Your task to perform on an android device: turn off location Image 0: 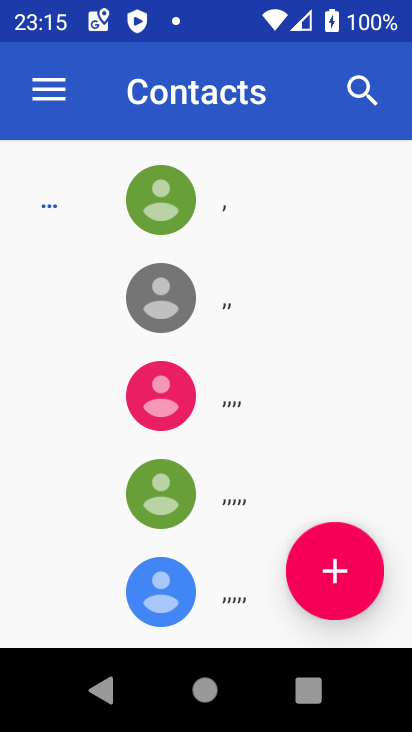
Step 0: press home button
Your task to perform on an android device: turn off location Image 1: 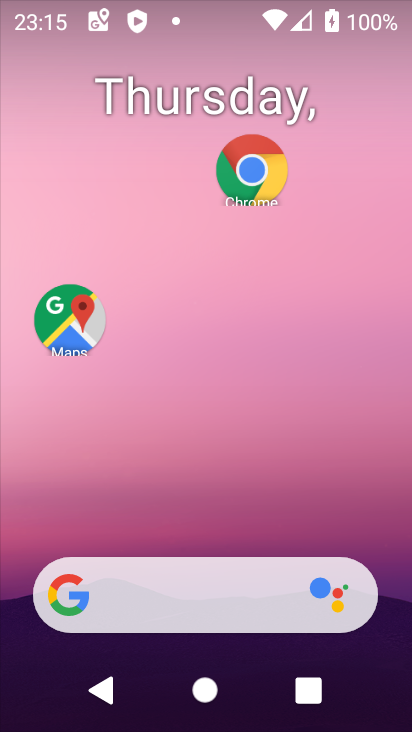
Step 1: drag from (194, 552) to (274, 281)
Your task to perform on an android device: turn off location Image 2: 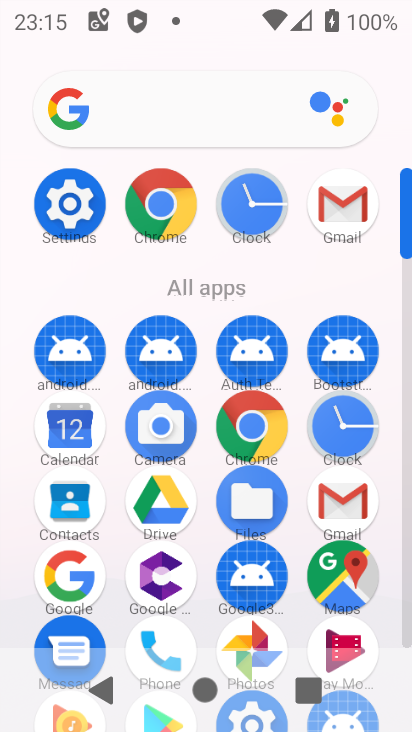
Step 2: drag from (250, 618) to (326, 326)
Your task to perform on an android device: turn off location Image 3: 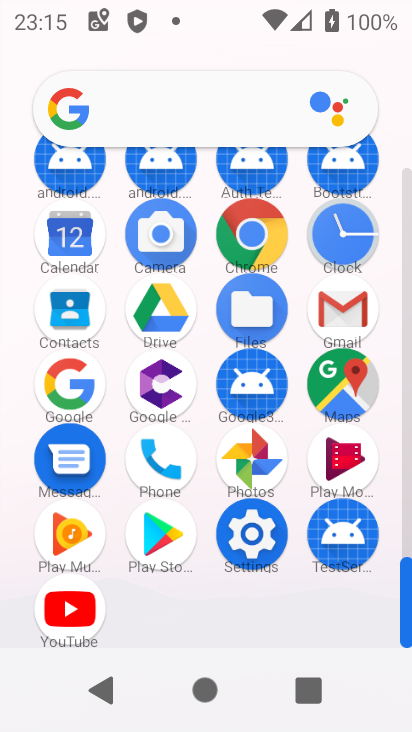
Step 3: click (72, 371)
Your task to perform on an android device: turn off location Image 4: 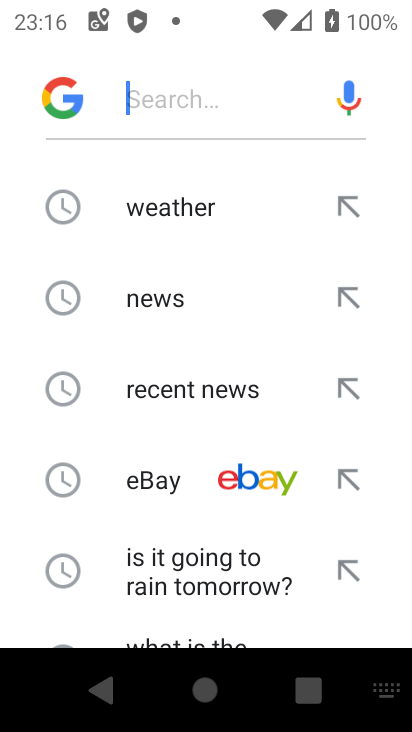
Step 4: press home button
Your task to perform on an android device: turn off location Image 5: 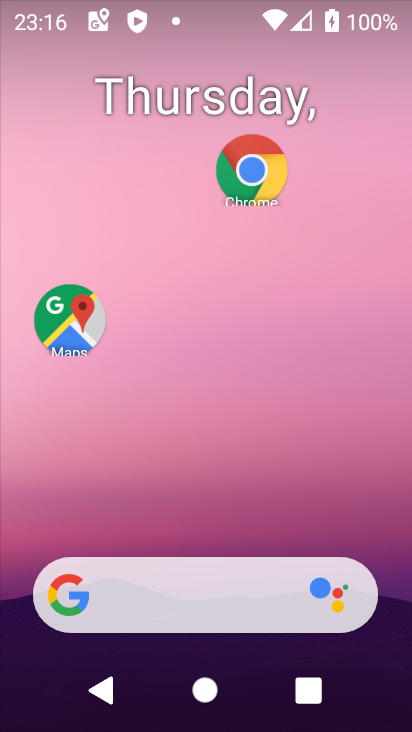
Step 5: drag from (178, 555) to (212, 104)
Your task to perform on an android device: turn off location Image 6: 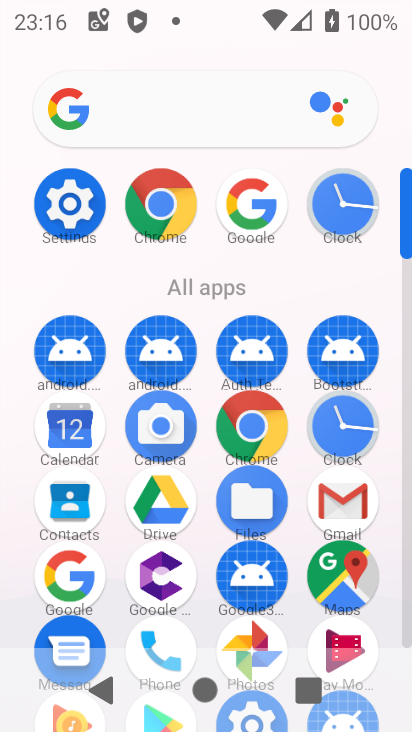
Step 6: click (65, 203)
Your task to perform on an android device: turn off location Image 7: 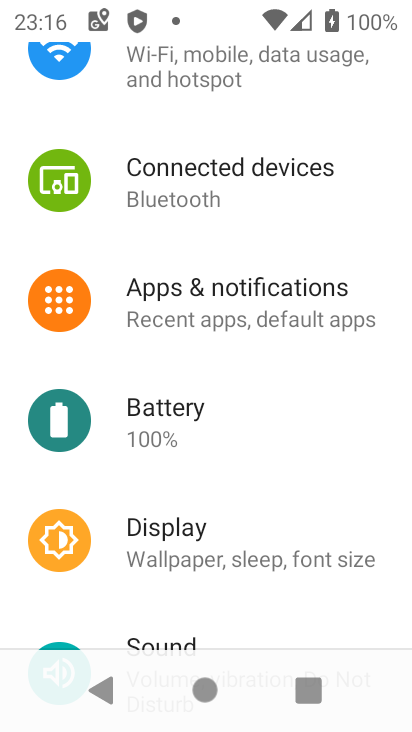
Step 7: drag from (217, 589) to (240, 296)
Your task to perform on an android device: turn off location Image 8: 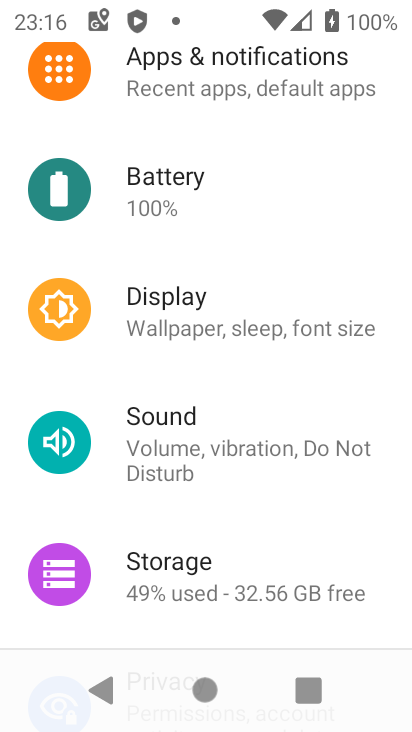
Step 8: drag from (204, 592) to (261, 279)
Your task to perform on an android device: turn off location Image 9: 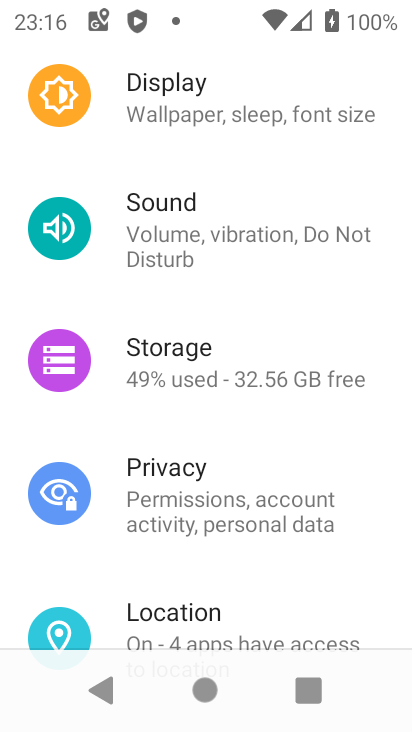
Step 9: click (191, 613)
Your task to perform on an android device: turn off location Image 10: 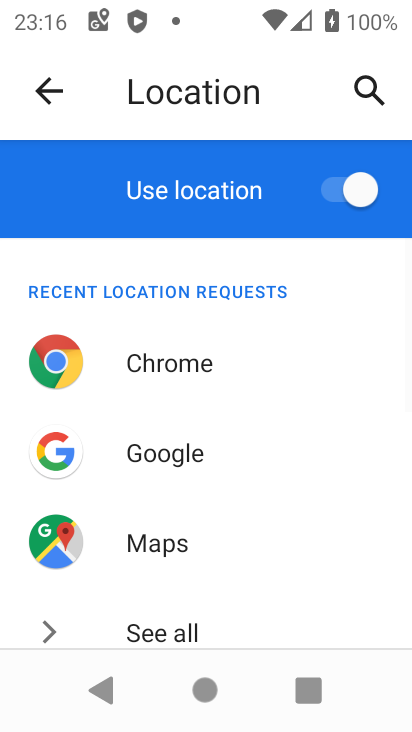
Step 10: click (335, 183)
Your task to perform on an android device: turn off location Image 11: 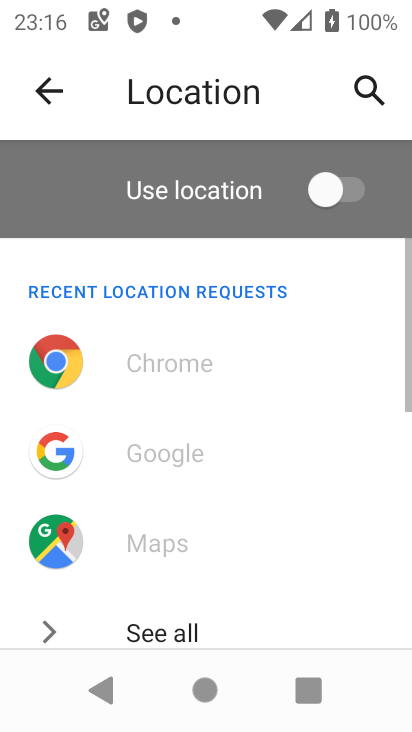
Step 11: task complete